Your task to perform on an android device: toggle location history Image 0: 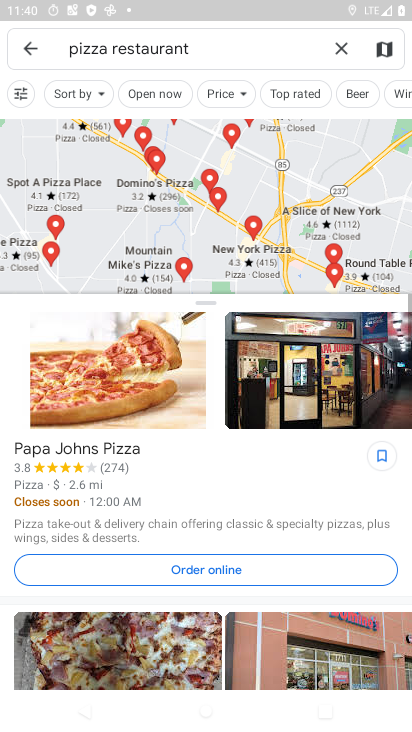
Step 0: press home button
Your task to perform on an android device: toggle location history Image 1: 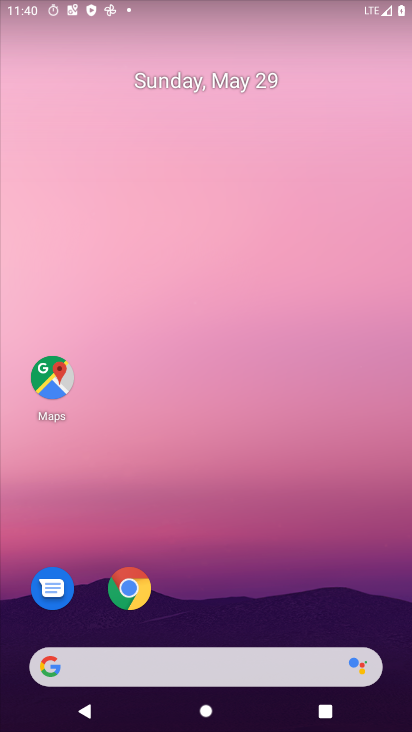
Step 1: drag from (255, 558) to (280, 147)
Your task to perform on an android device: toggle location history Image 2: 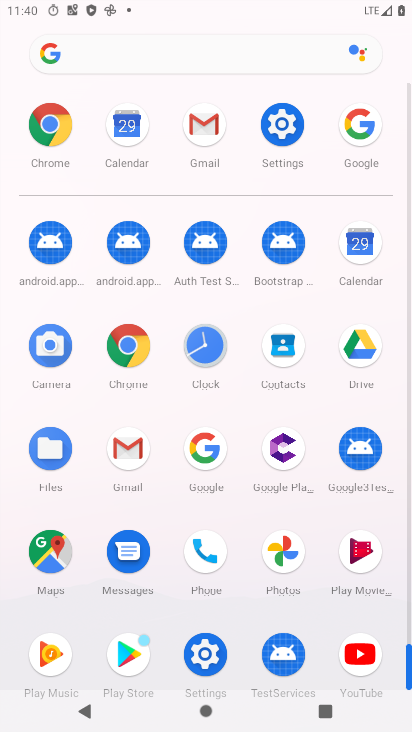
Step 2: click (191, 676)
Your task to perform on an android device: toggle location history Image 3: 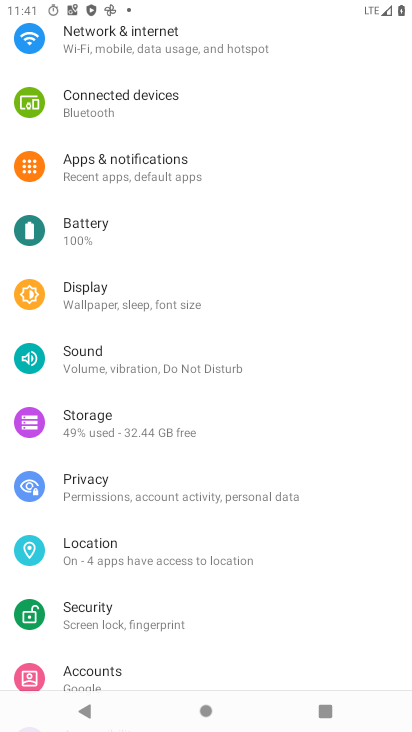
Step 3: click (127, 555)
Your task to perform on an android device: toggle location history Image 4: 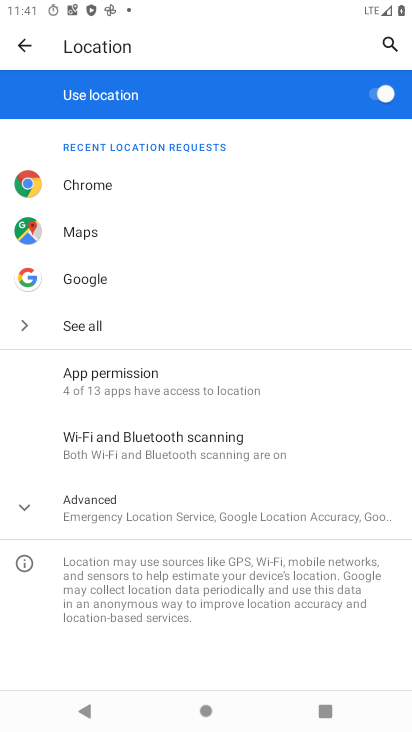
Step 4: click (108, 522)
Your task to perform on an android device: toggle location history Image 5: 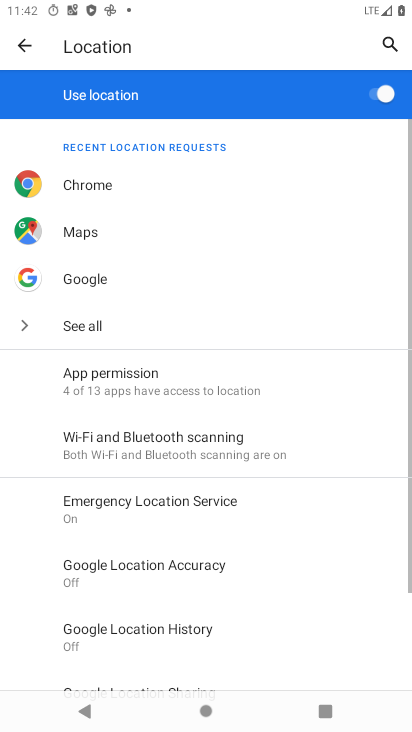
Step 5: drag from (109, 521) to (157, 224)
Your task to perform on an android device: toggle location history Image 6: 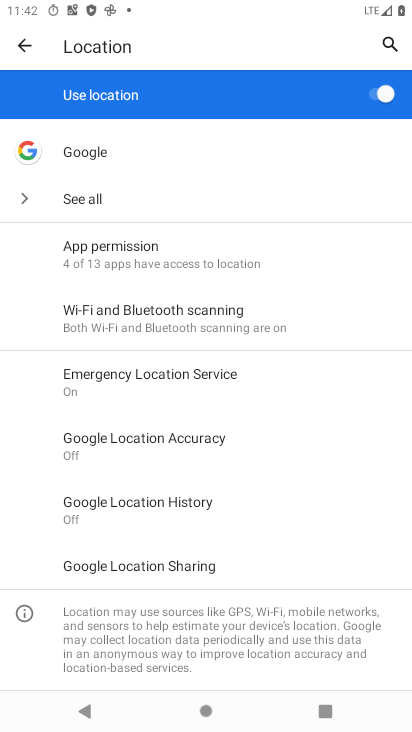
Step 6: click (178, 514)
Your task to perform on an android device: toggle location history Image 7: 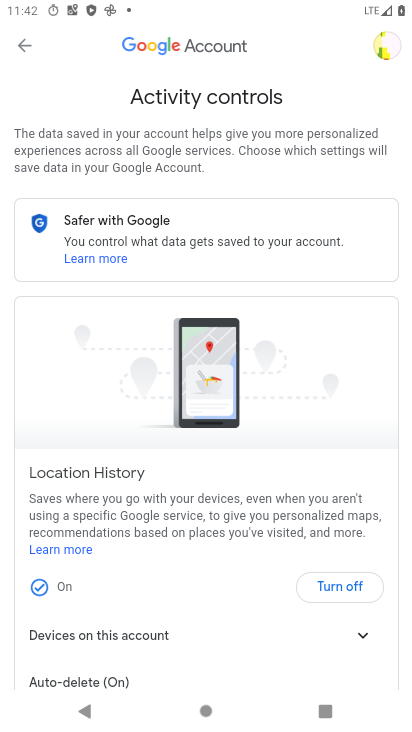
Step 7: click (341, 589)
Your task to perform on an android device: toggle location history Image 8: 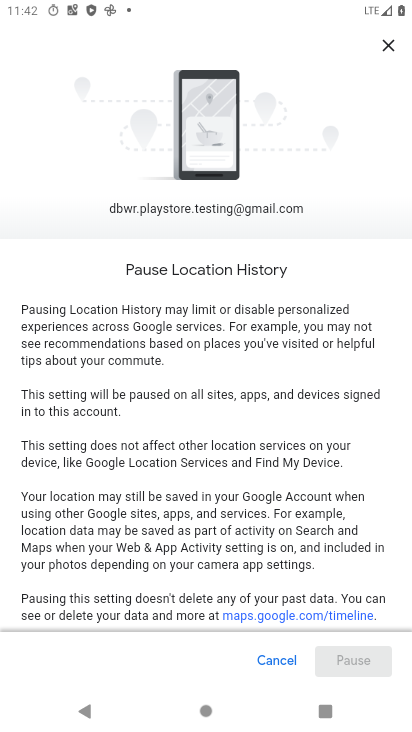
Step 8: drag from (288, 625) to (243, 169)
Your task to perform on an android device: toggle location history Image 9: 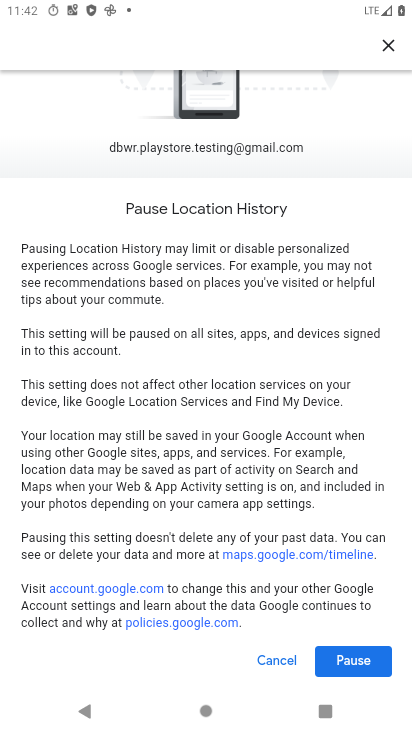
Step 9: click (362, 654)
Your task to perform on an android device: toggle location history Image 10: 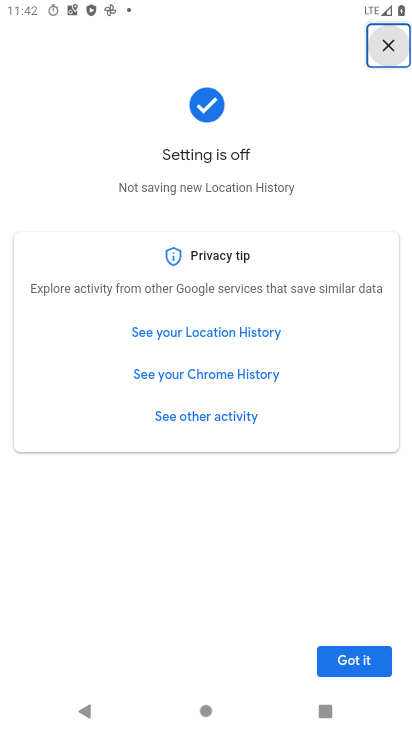
Step 10: click (358, 672)
Your task to perform on an android device: toggle location history Image 11: 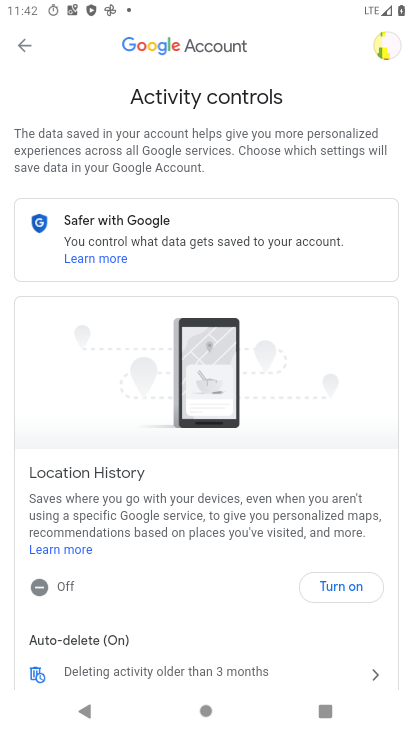
Step 11: task complete